Your task to perform on an android device: toggle notifications settings in the gmail app Image 0: 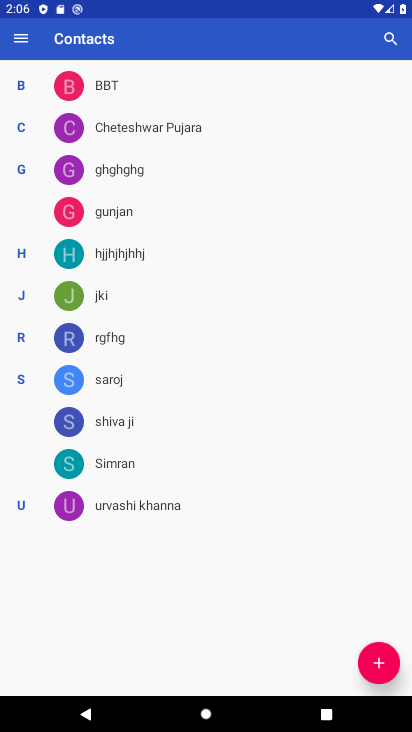
Step 0: press home button
Your task to perform on an android device: toggle notifications settings in the gmail app Image 1: 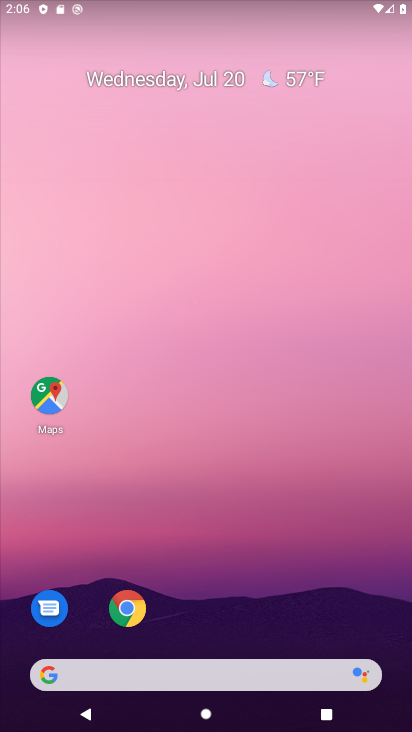
Step 1: drag from (210, 629) to (214, 80)
Your task to perform on an android device: toggle notifications settings in the gmail app Image 2: 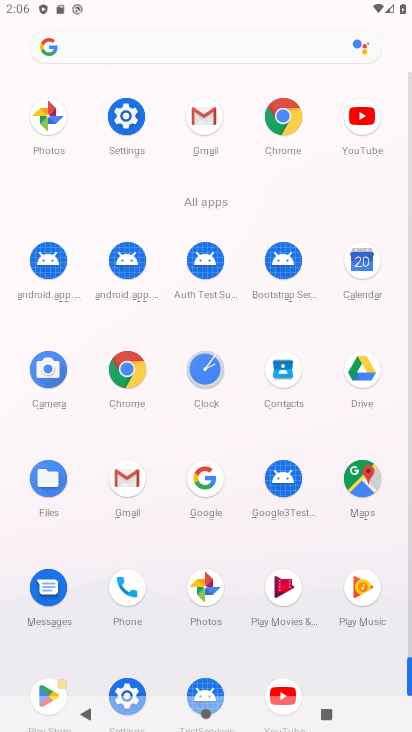
Step 2: click (132, 470)
Your task to perform on an android device: toggle notifications settings in the gmail app Image 3: 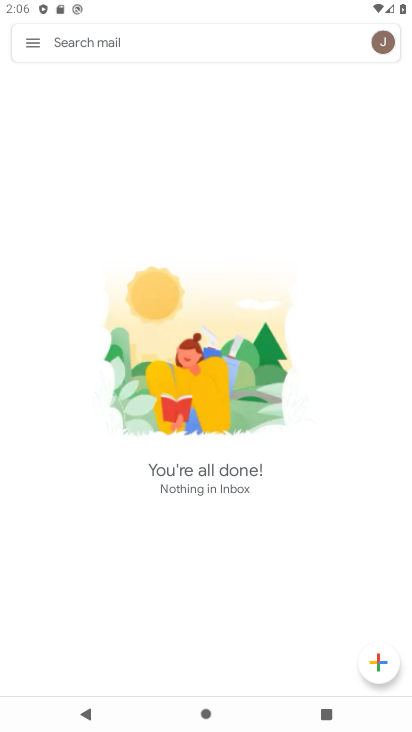
Step 3: click (29, 41)
Your task to perform on an android device: toggle notifications settings in the gmail app Image 4: 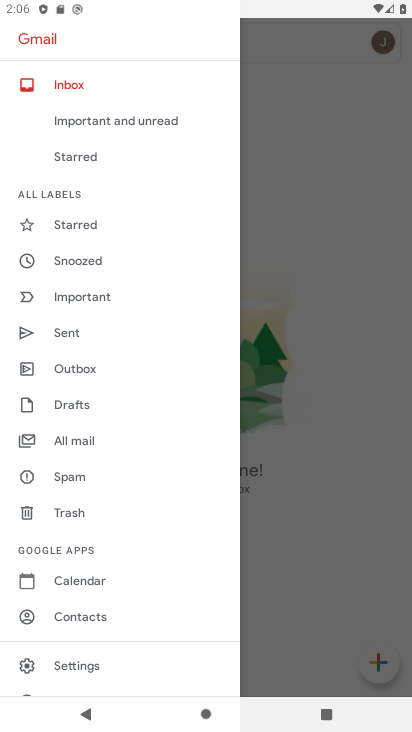
Step 4: click (109, 650)
Your task to perform on an android device: toggle notifications settings in the gmail app Image 5: 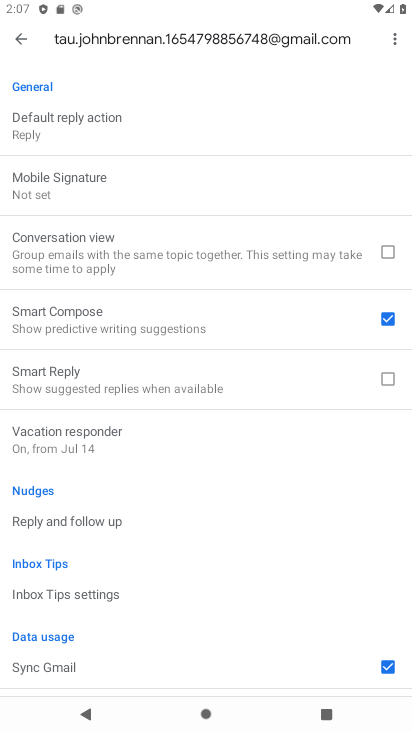
Step 5: click (18, 37)
Your task to perform on an android device: toggle notifications settings in the gmail app Image 6: 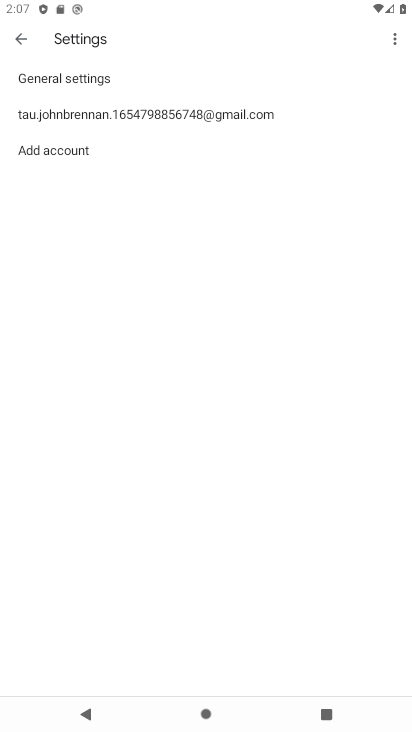
Step 6: click (53, 83)
Your task to perform on an android device: toggle notifications settings in the gmail app Image 7: 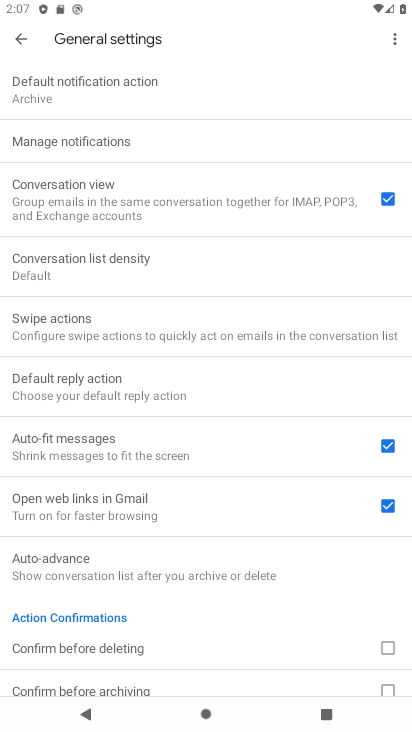
Step 7: click (95, 136)
Your task to perform on an android device: toggle notifications settings in the gmail app Image 8: 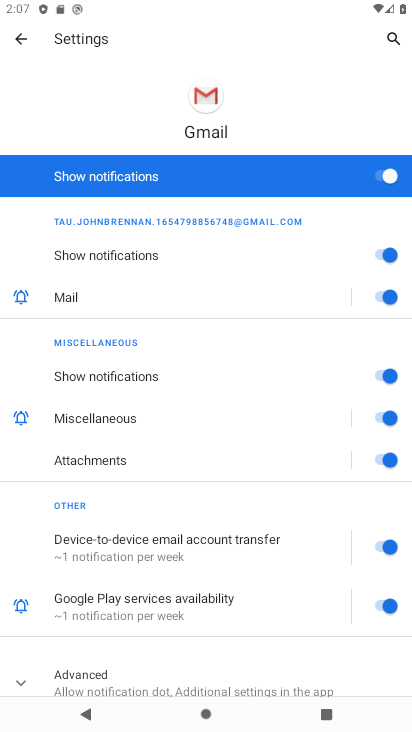
Step 8: click (378, 178)
Your task to perform on an android device: toggle notifications settings in the gmail app Image 9: 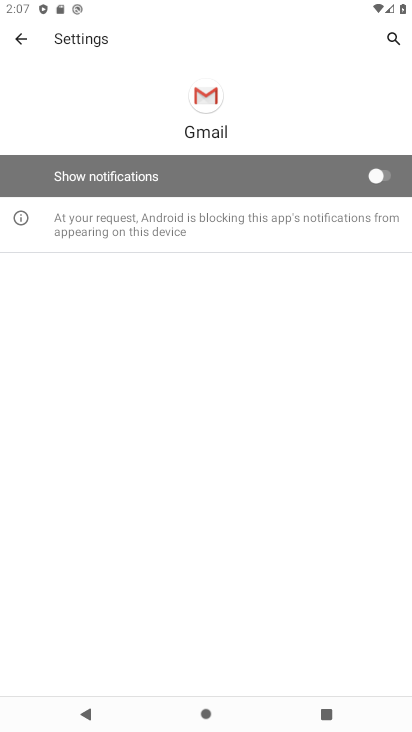
Step 9: task complete